Your task to perform on an android device: change the clock display to analog Image 0: 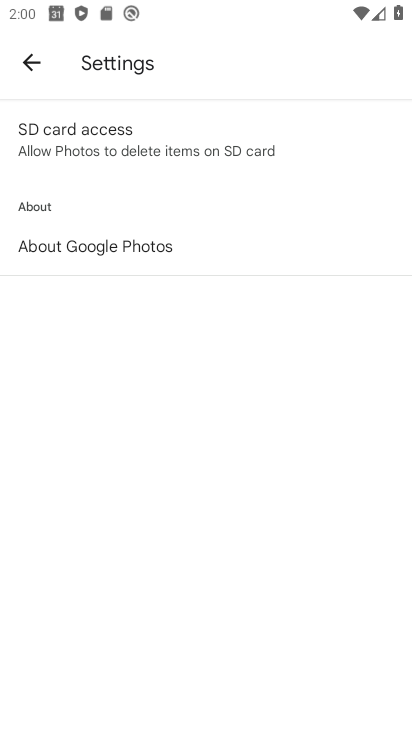
Step 0: press back button
Your task to perform on an android device: change the clock display to analog Image 1: 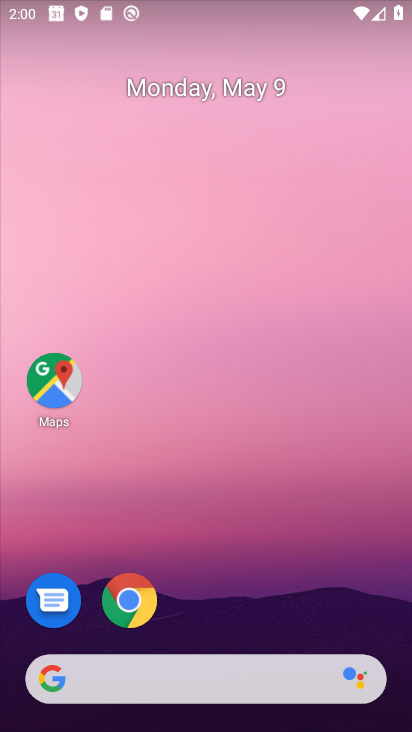
Step 1: drag from (236, 597) to (185, 3)
Your task to perform on an android device: change the clock display to analog Image 2: 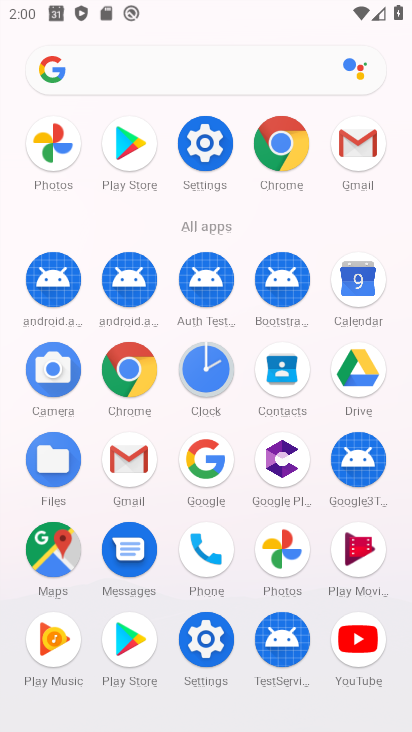
Step 2: drag from (14, 621) to (3, 319)
Your task to perform on an android device: change the clock display to analog Image 3: 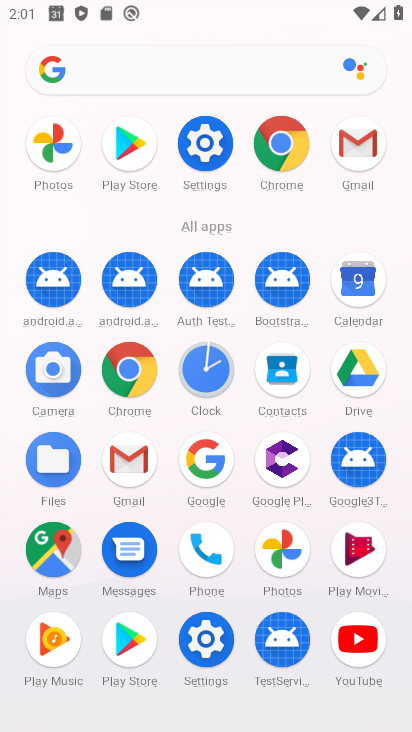
Step 3: drag from (20, 529) to (15, 285)
Your task to perform on an android device: change the clock display to analog Image 4: 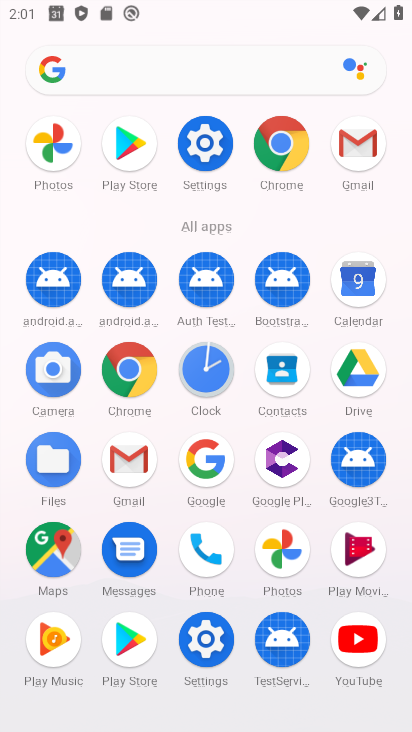
Step 4: click (204, 365)
Your task to perform on an android device: change the clock display to analog Image 5: 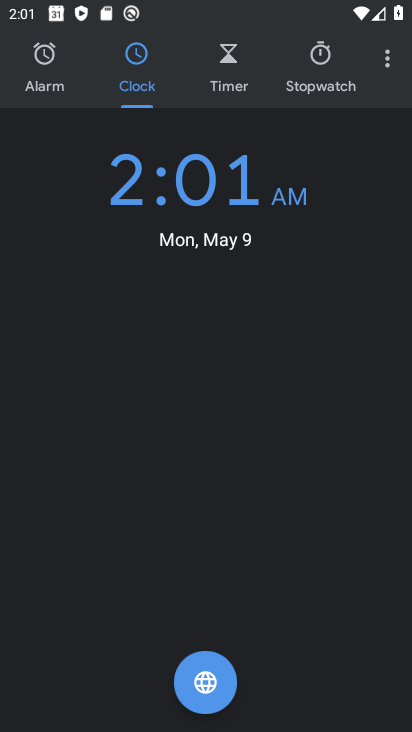
Step 5: click (375, 62)
Your task to perform on an android device: change the clock display to analog Image 6: 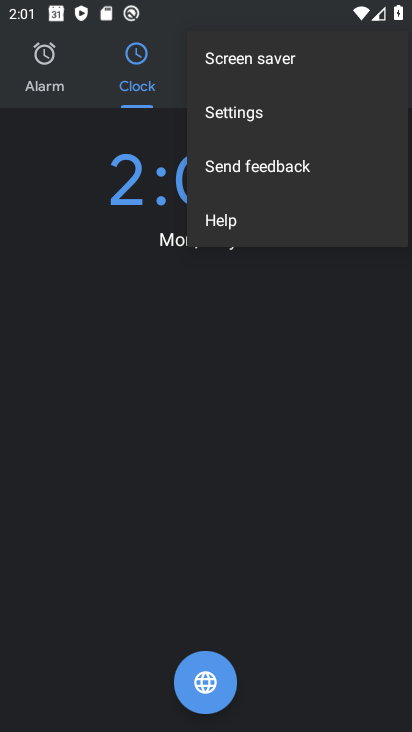
Step 6: click (285, 113)
Your task to perform on an android device: change the clock display to analog Image 7: 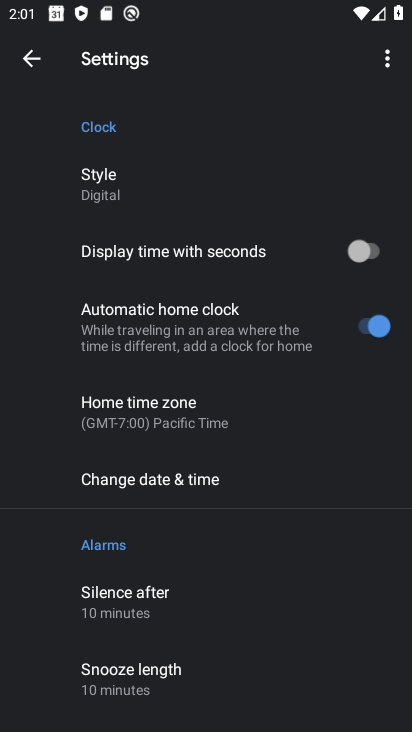
Step 7: click (160, 190)
Your task to perform on an android device: change the clock display to analog Image 8: 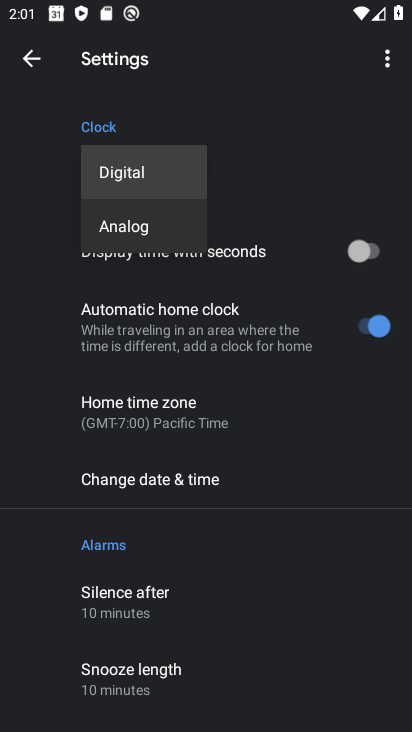
Step 8: click (132, 238)
Your task to perform on an android device: change the clock display to analog Image 9: 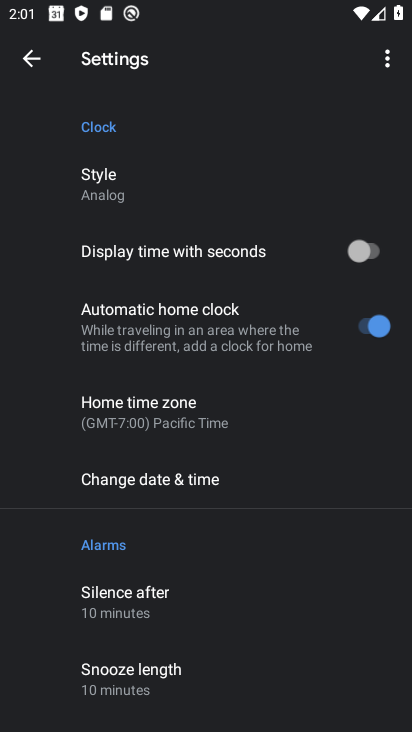
Step 9: task complete